Your task to perform on an android device: open chrome privacy settings Image 0: 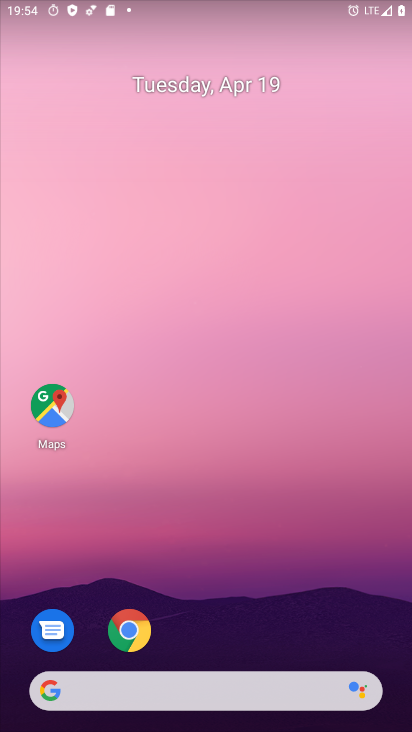
Step 0: click (136, 636)
Your task to perform on an android device: open chrome privacy settings Image 1: 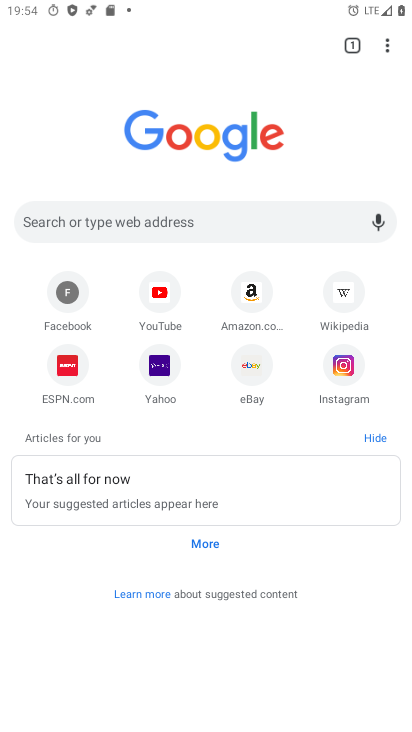
Step 1: click (383, 45)
Your task to perform on an android device: open chrome privacy settings Image 2: 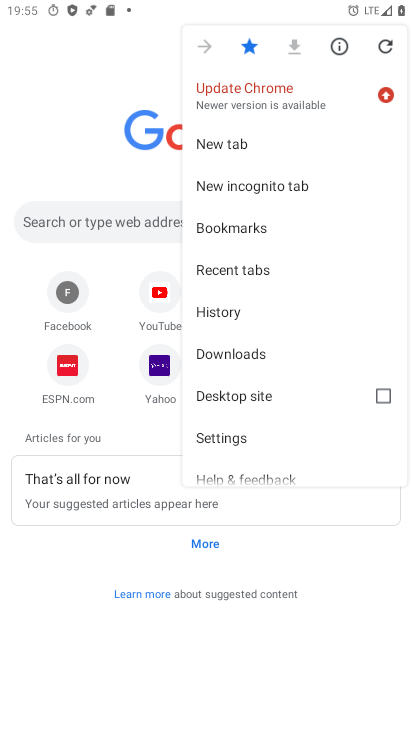
Step 2: click (235, 444)
Your task to perform on an android device: open chrome privacy settings Image 3: 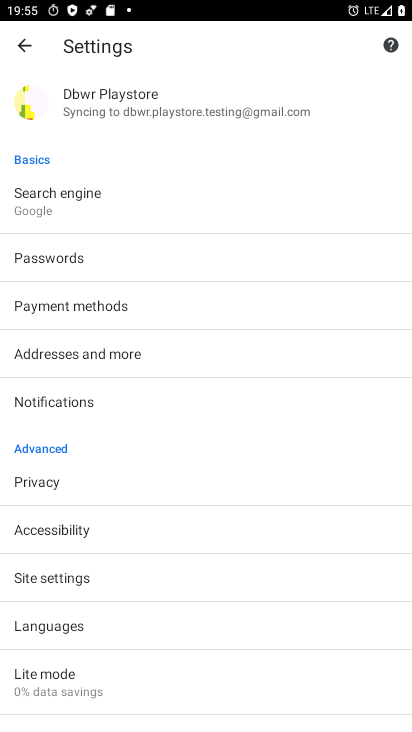
Step 3: click (20, 470)
Your task to perform on an android device: open chrome privacy settings Image 4: 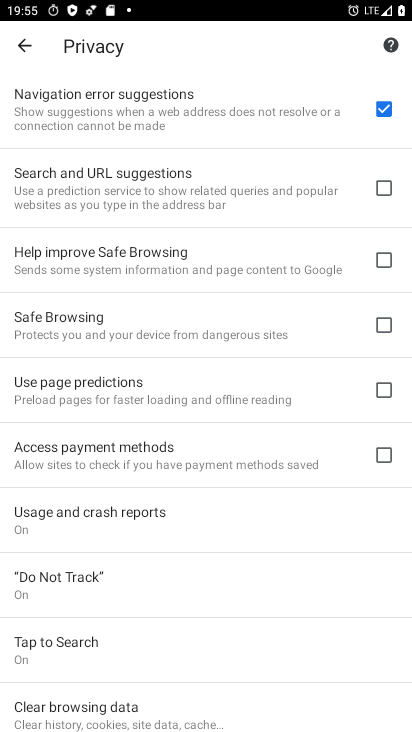
Step 4: task complete